Your task to perform on an android device: show emergency info Image 0: 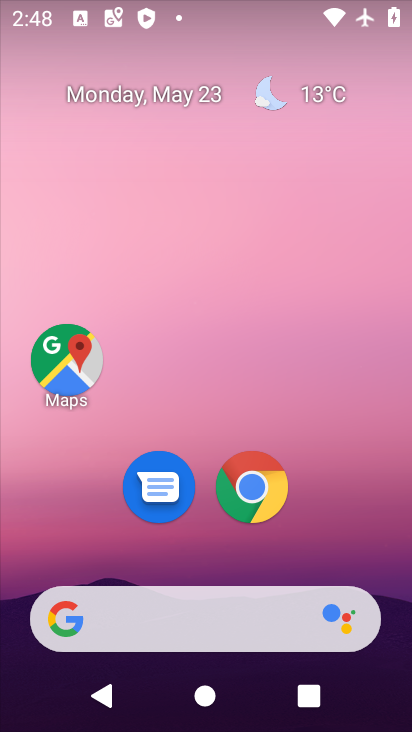
Step 0: drag from (391, 605) to (340, 74)
Your task to perform on an android device: show emergency info Image 1: 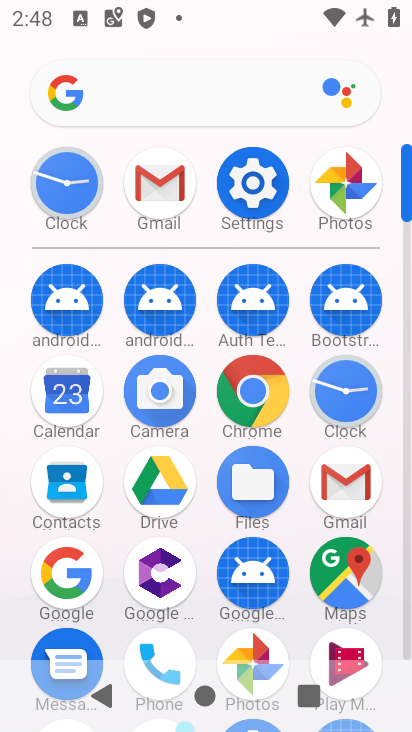
Step 1: click (405, 638)
Your task to perform on an android device: show emergency info Image 2: 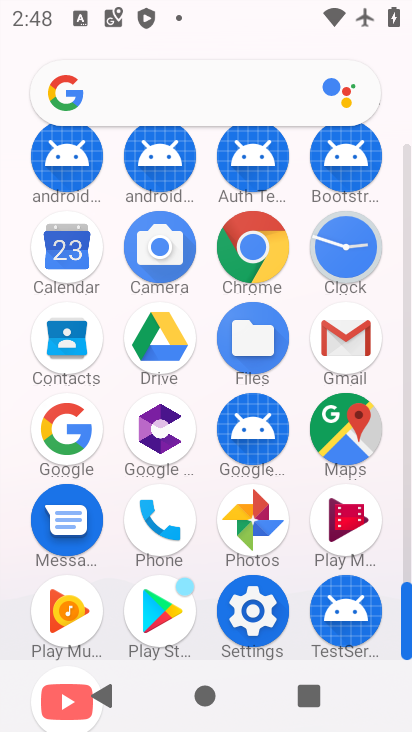
Step 2: click (256, 608)
Your task to perform on an android device: show emergency info Image 3: 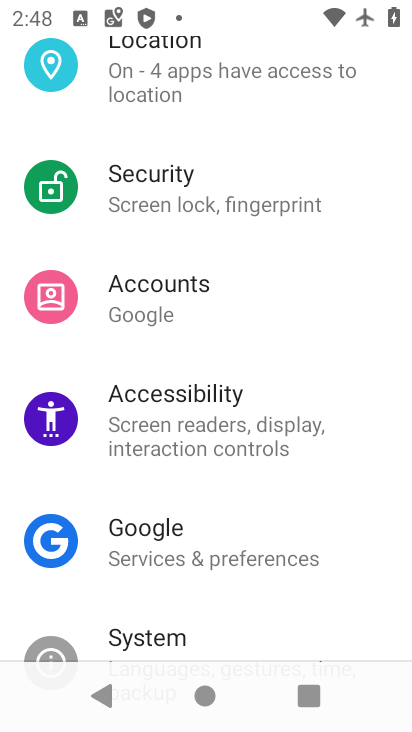
Step 3: drag from (227, 627) to (222, 316)
Your task to perform on an android device: show emergency info Image 4: 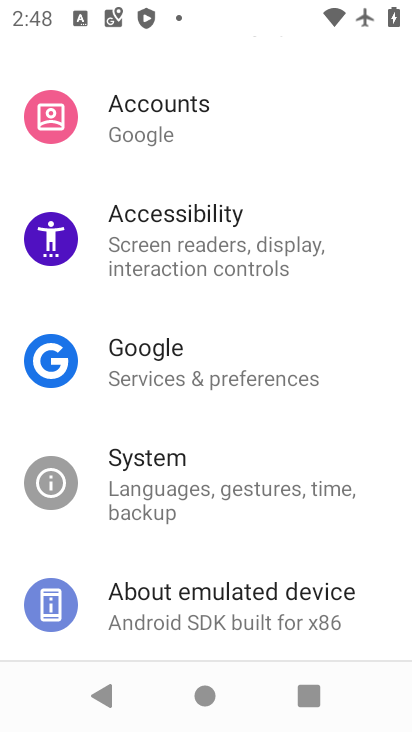
Step 4: click (208, 608)
Your task to perform on an android device: show emergency info Image 5: 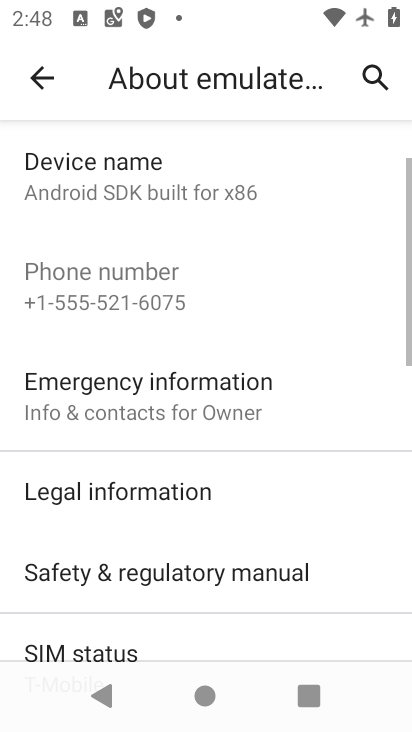
Step 5: click (116, 389)
Your task to perform on an android device: show emergency info Image 6: 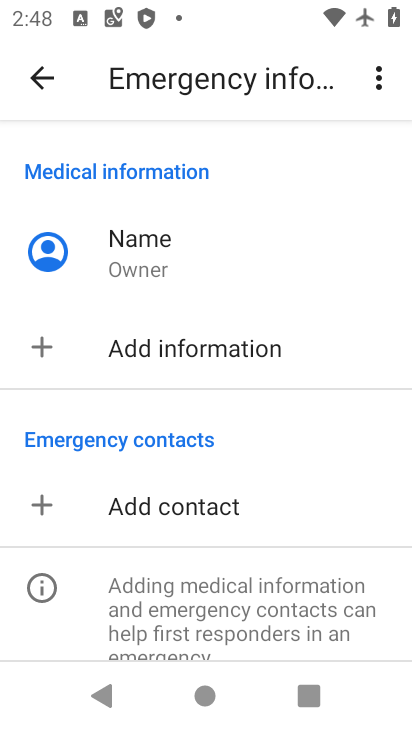
Step 6: task complete